Your task to perform on an android device: Search for vegetarian restaurants on Maps Image 0: 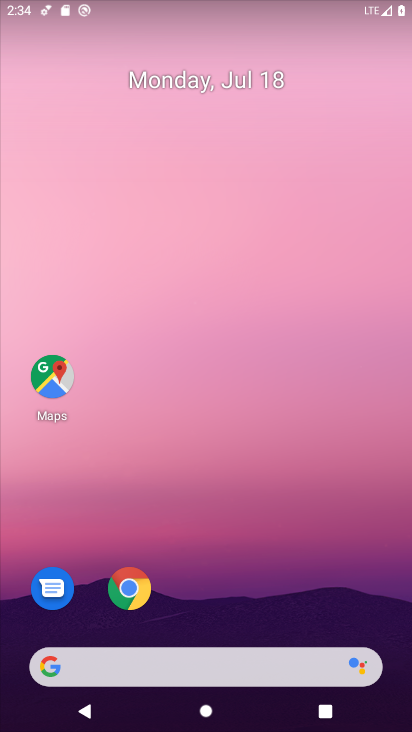
Step 0: drag from (392, 621) to (290, 59)
Your task to perform on an android device: Search for vegetarian restaurants on Maps Image 1: 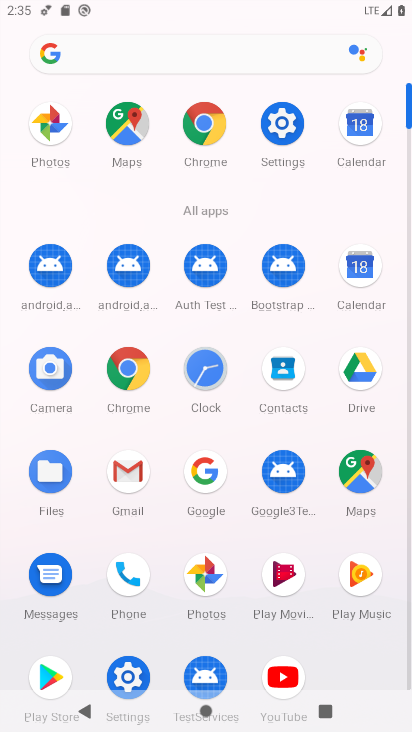
Step 1: click (132, 131)
Your task to perform on an android device: Search for vegetarian restaurants on Maps Image 2: 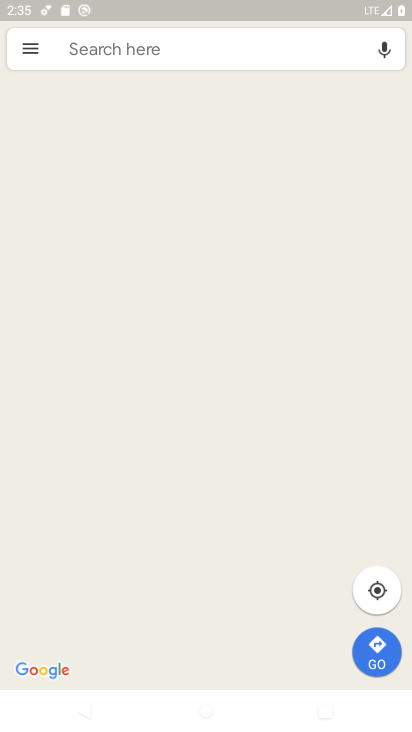
Step 2: click (197, 59)
Your task to perform on an android device: Search for vegetarian restaurants on Maps Image 3: 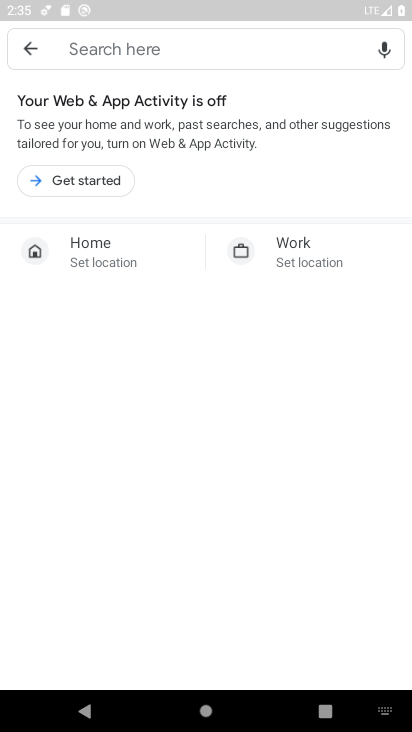
Step 3: click (184, 55)
Your task to perform on an android device: Search for vegetarian restaurants on Maps Image 4: 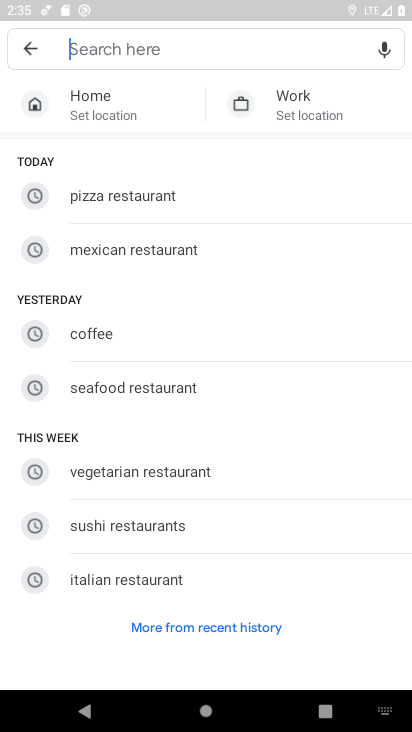
Step 4: click (241, 484)
Your task to perform on an android device: Search for vegetarian restaurants on Maps Image 5: 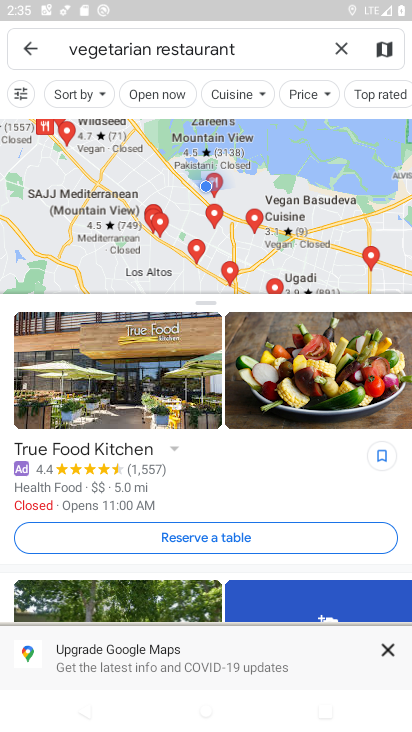
Step 5: task complete